Your task to perform on an android device: add a contact in the contacts app Image 0: 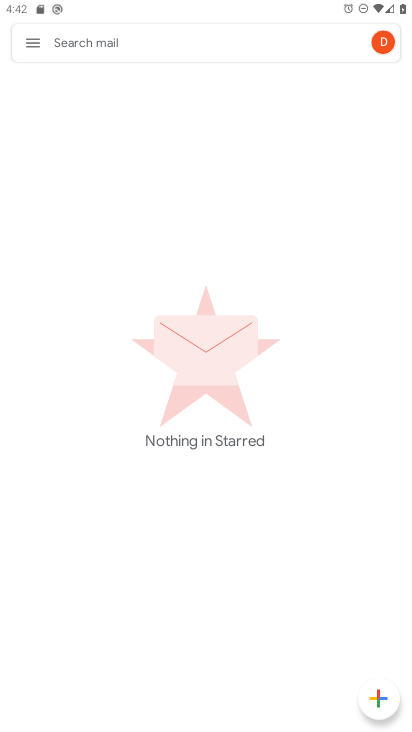
Step 0: press home button
Your task to perform on an android device: add a contact in the contacts app Image 1: 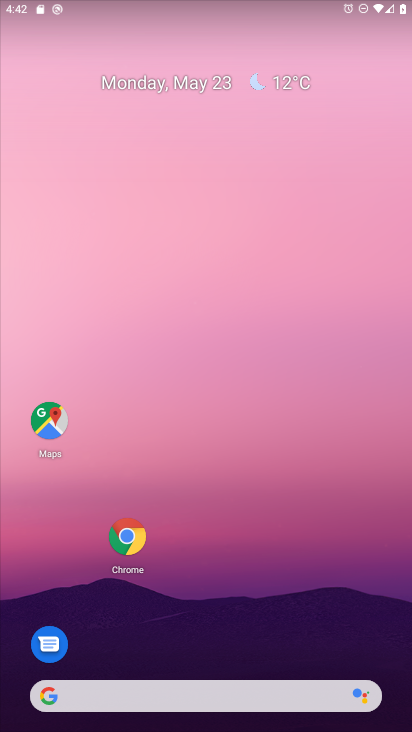
Step 1: drag from (273, 589) to (272, 170)
Your task to perform on an android device: add a contact in the contacts app Image 2: 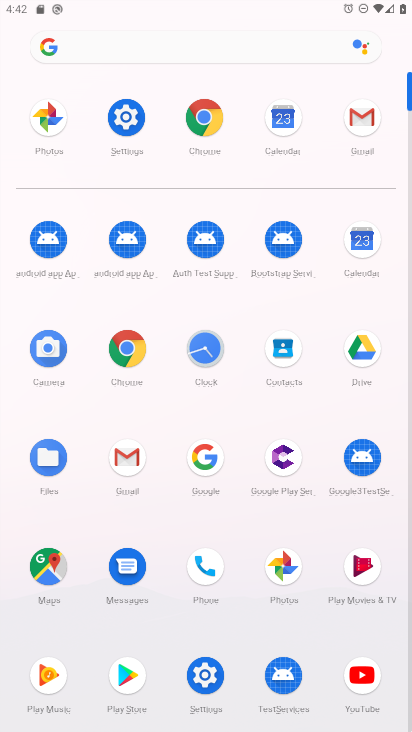
Step 2: drag from (358, 233) to (313, 329)
Your task to perform on an android device: add a contact in the contacts app Image 3: 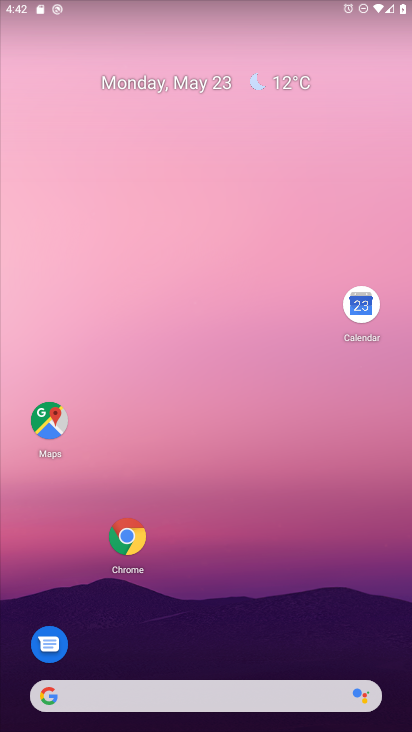
Step 3: drag from (258, 499) to (301, 109)
Your task to perform on an android device: add a contact in the contacts app Image 4: 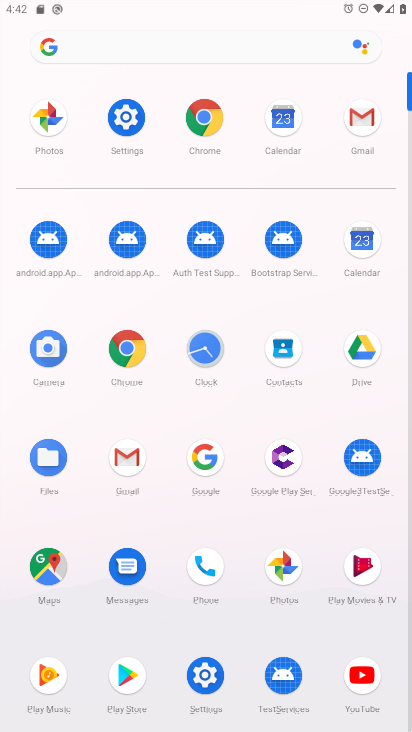
Step 4: click (275, 358)
Your task to perform on an android device: add a contact in the contacts app Image 5: 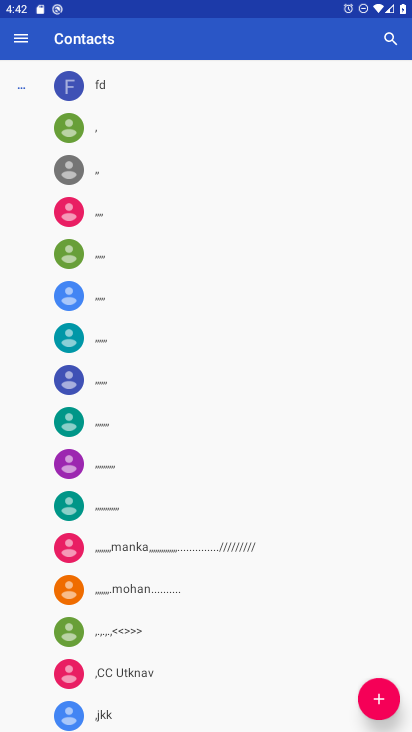
Step 5: click (370, 697)
Your task to perform on an android device: add a contact in the contacts app Image 6: 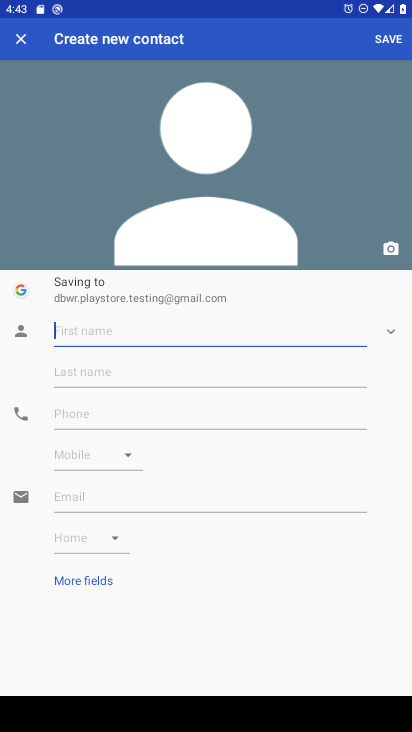
Step 6: click (183, 334)
Your task to perform on an android device: add a contact in the contacts app Image 7: 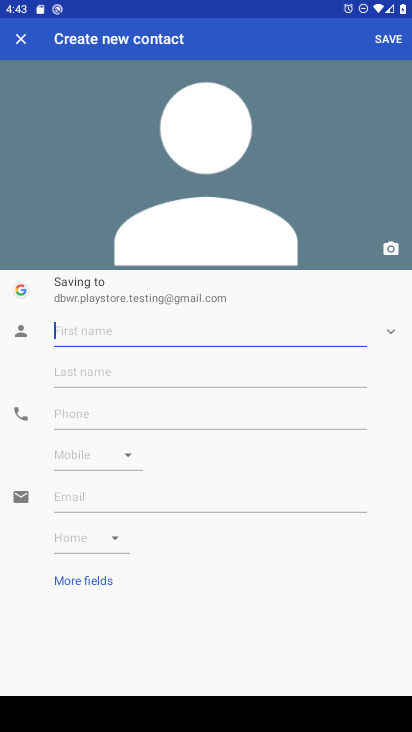
Step 7: type "lilool"
Your task to perform on an android device: add a contact in the contacts app Image 8: 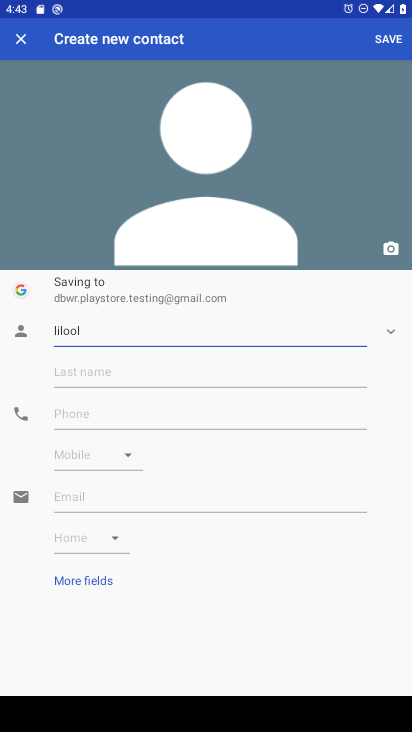
Step 8: click (379, 43)
Your task to perform on an android device: add a contact in the contacts app Image 9: 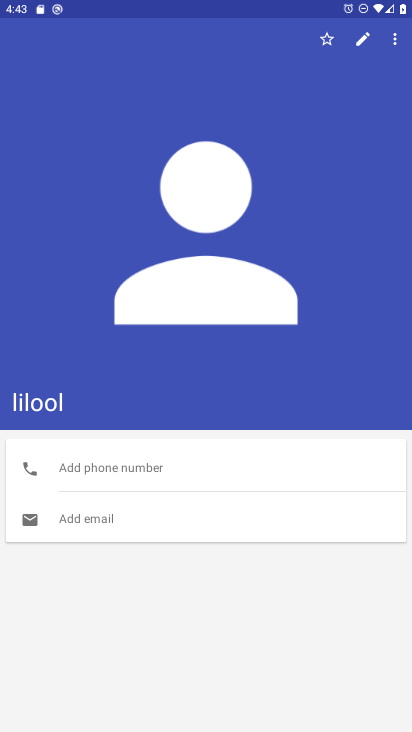
Step 9: task complete